Your task to perform on an android device: Go to Google Image 0: 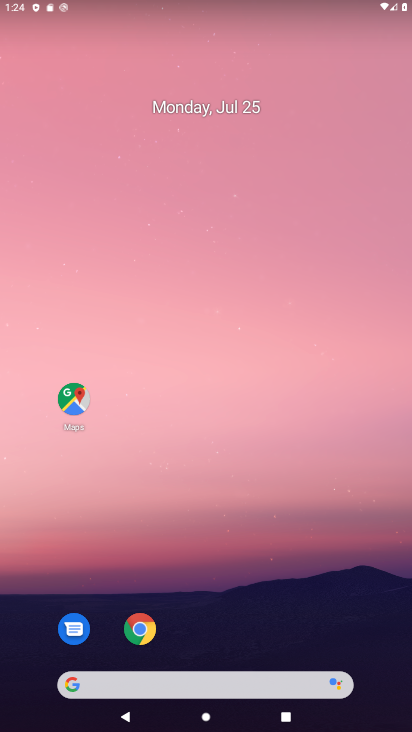
Step 0: drag from (173, 624) to (227, 175)
Your task to perform on an android device: Go to Google Image 1: 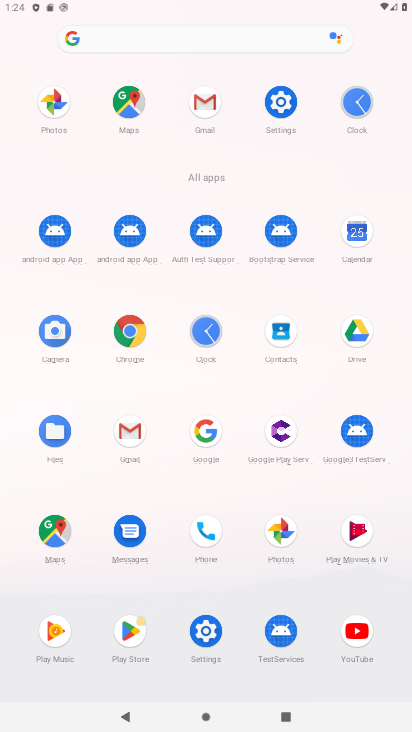
Step 1: click (196, 428)
Your task to perform on an android device: Go to Google Image 2: 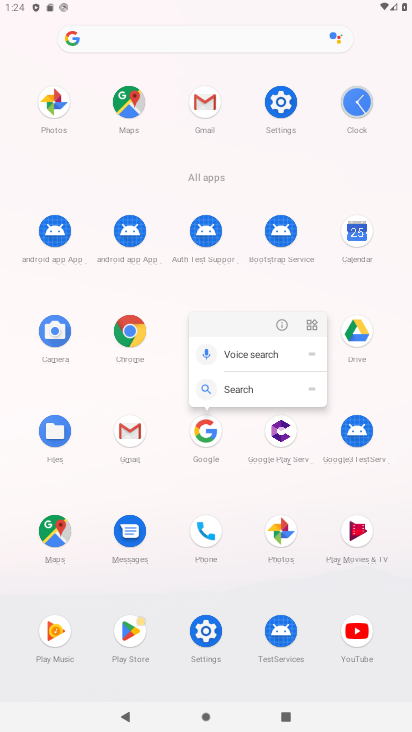
Step 2: click (282, 324)
Your task to perform on an android device: Go to Google Image 3: 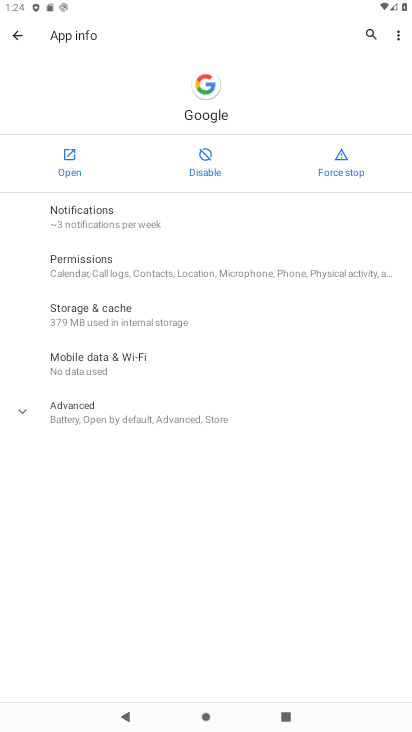
Step 3: click (77, 149)
Your task to perform on an android device: Go to Google Image 4: 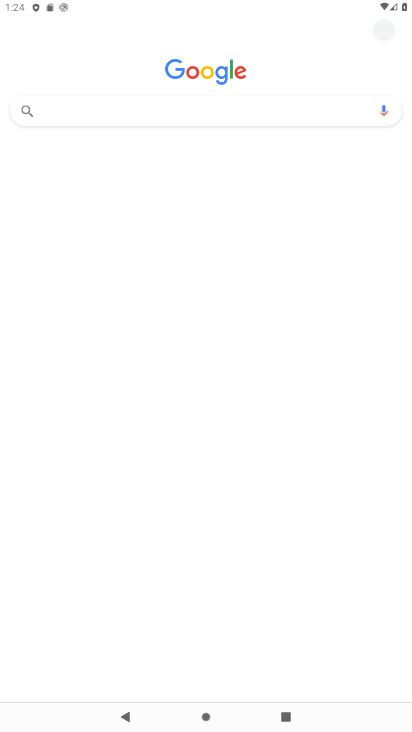
Step 4: click (184, 311)
Your task to perform on an android device: Go to Google Image 5: 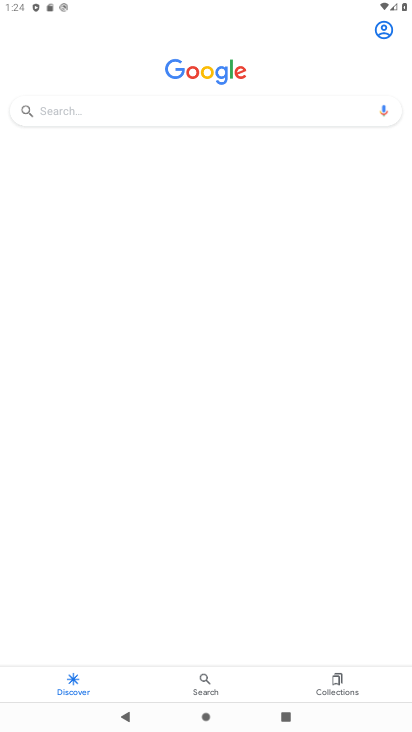
Step 5: task complete